Your task to perform on an android device: Is it going to rain this weekend? Image 0: 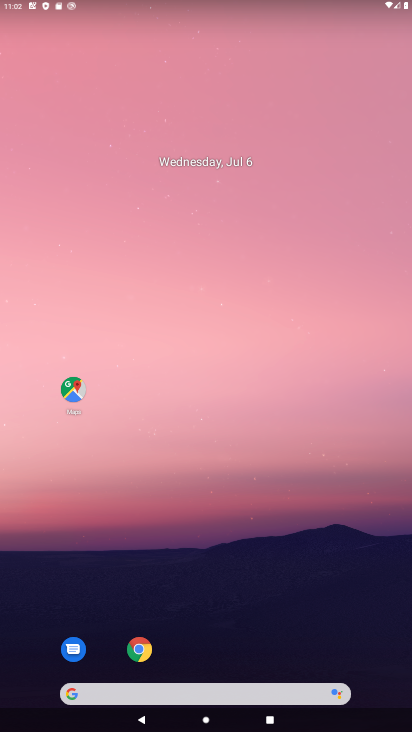
Step 0: press home button
Your task to perform on an android device: Is it going to rain this weekend? Image 1: 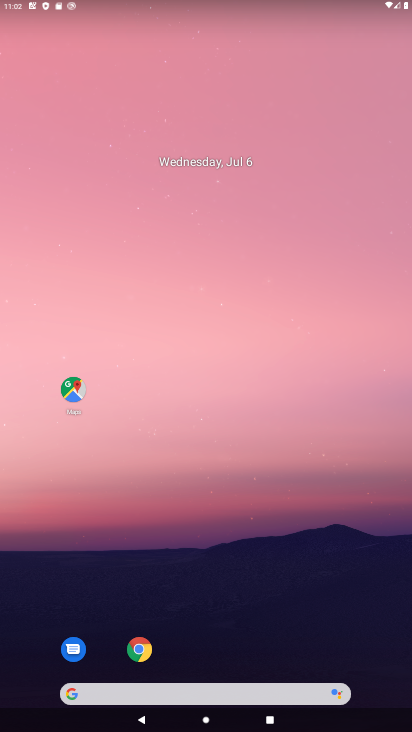
Step 1: drag from (361, 655) to (215, 66)
Your task to perform on an android device: Is it going to rain this weekend? Image 2: 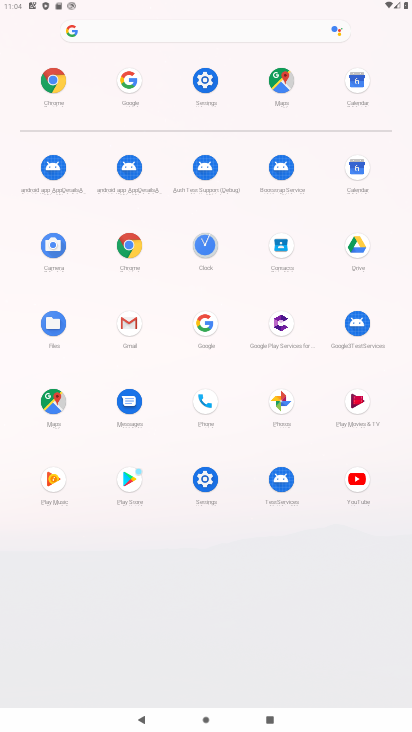
Step 2: click (140, 88)
Your task to perform on an android device: Is it going to rain this weekend? Image 3: 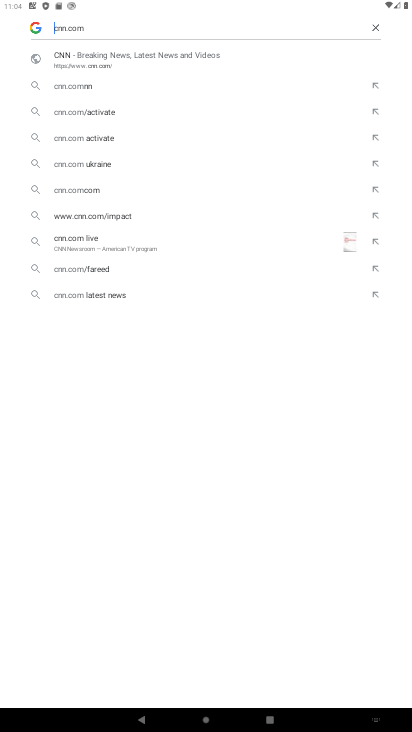
Step 3: click (371, 25)
Your task to perform on an android device: Is it going to rain this weekend? Image 4: 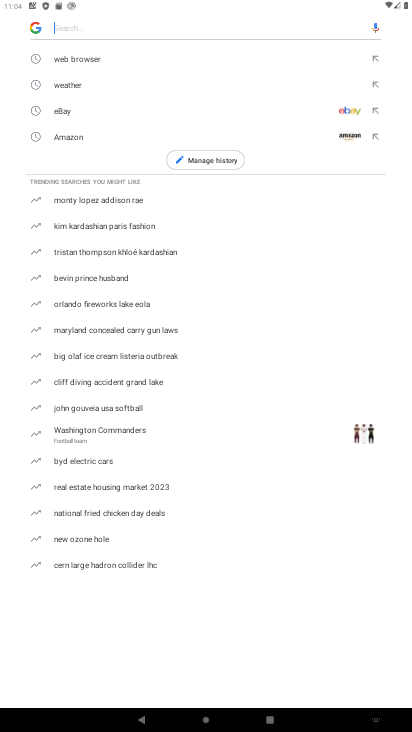
Step 4: type "is it going to rain this weekend?"
Your task to perform on an android device: Is it going to rain this weekend? Image 5: 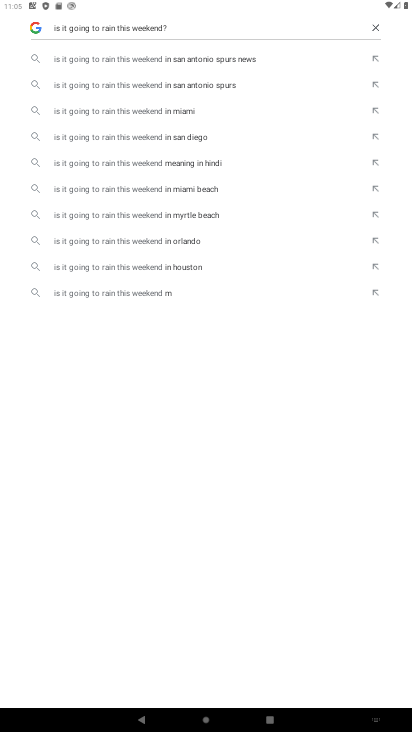
Step 5: task complete